Your task to perform on an android device: turn on location history Image 0: 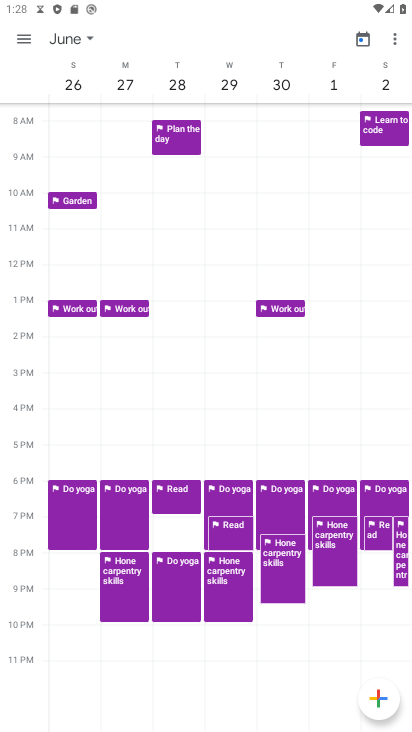
Step 0: press home button
Your task to perform on an android device: turn on location history Image 1: 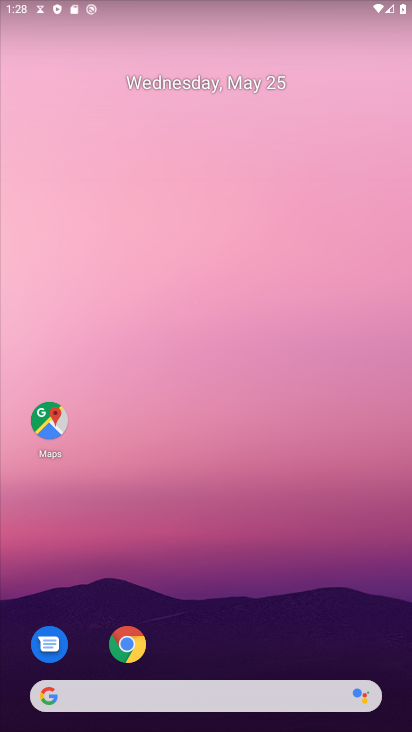
Step 1: drag from (211, 658) to (243, 2)
Your task to perform on an android device: turn on location history Image 2: 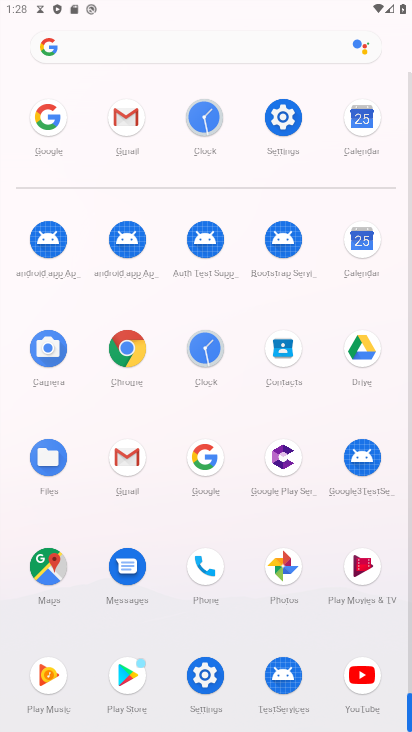
Step 2: click (281, 125)
Your task to perform on an android device: turn on location history Image 3: 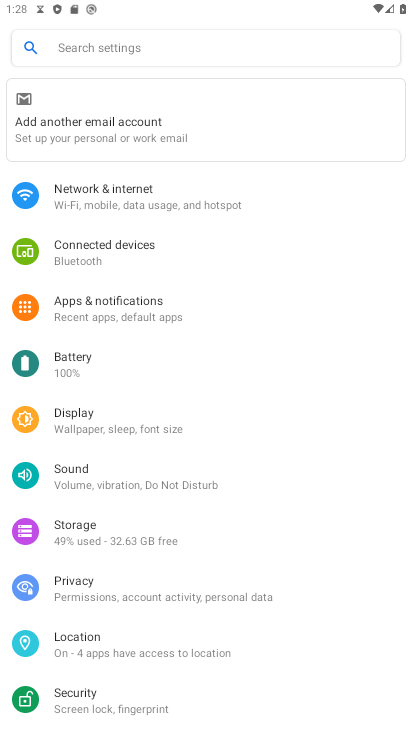
Step 3: click (85, 645)
Your task to perform on an android device: turn on location history Image 4: 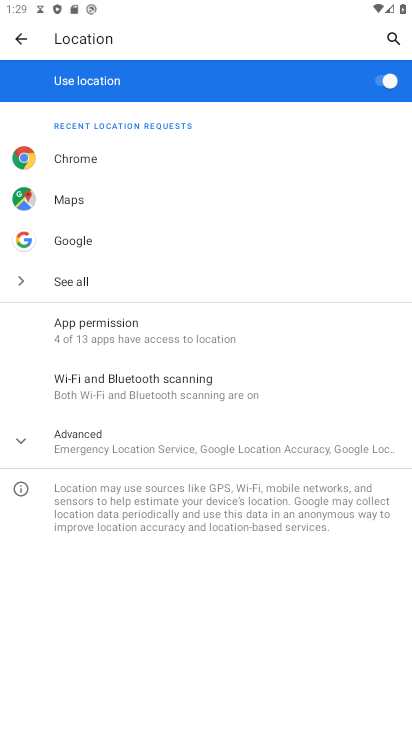
Step 4: click (127, 445)
Your task to perform on an android device: turn on location history Image 5: 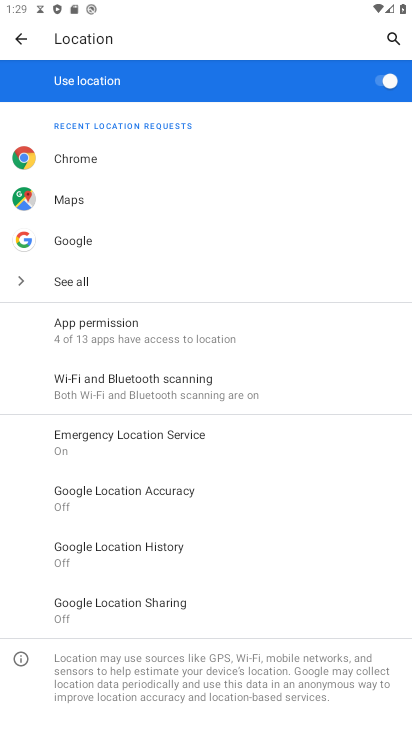
Step 5: click (137, 555)
Your task to perform on an android device: turn on location history Image 6: 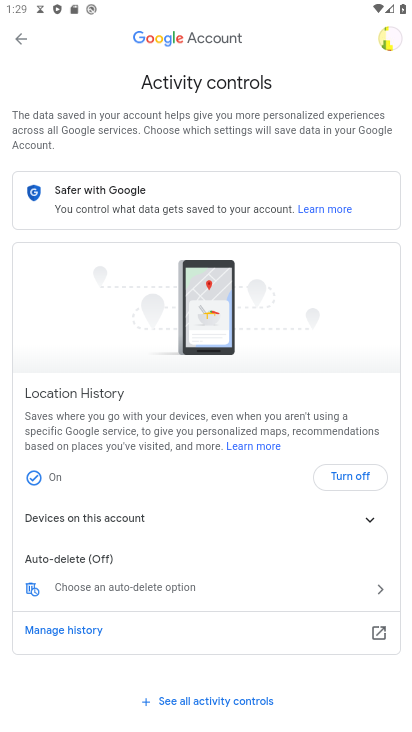
Step 6: task complete